Your task to perform on an android device: turn off picture-in-picture Image 0: 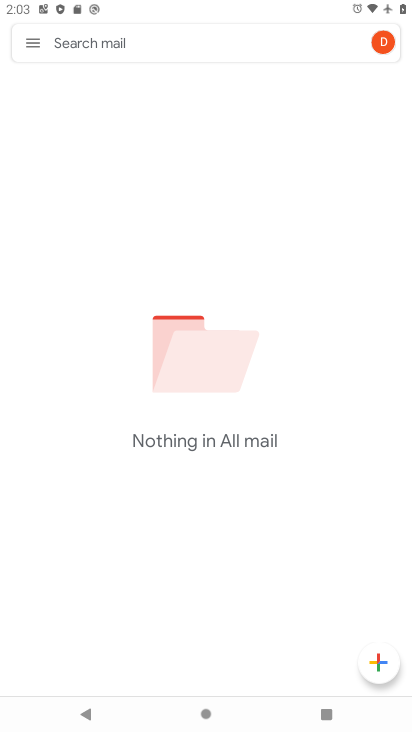
Step 0: press home button
Your task to perform on an android device: turn off picture-in-picture Image 1: 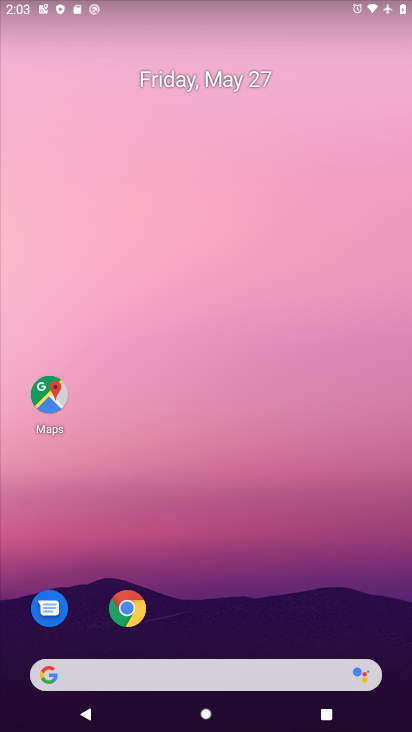
Step 1: click (131, 609)
Your task to perform on an android device: turn off picture-in-picture Image 2: 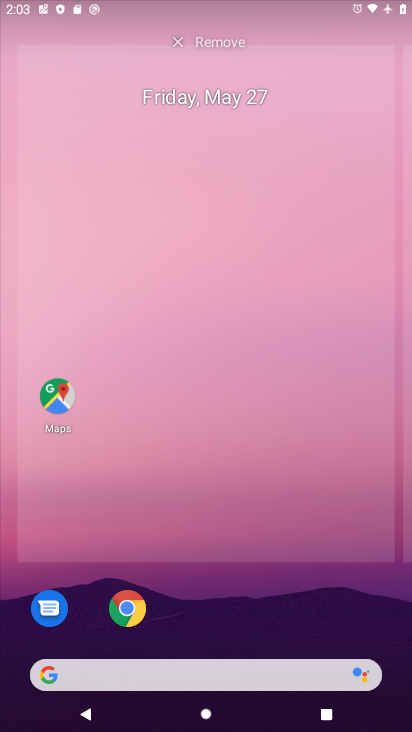
Step 2: click (223, 484)
Your task to perform on an android device: turn off picture-in-picture Image 3: 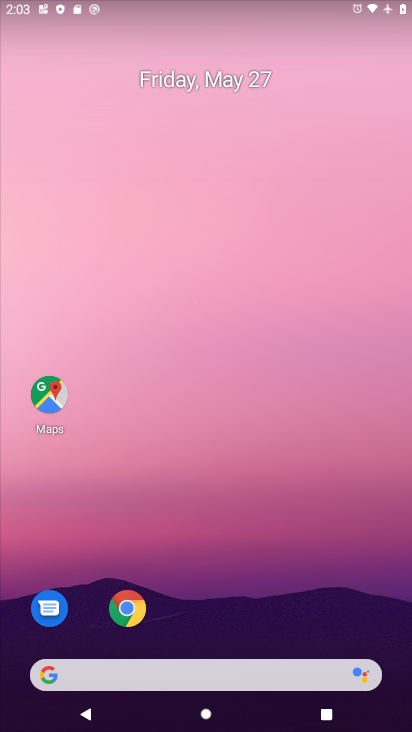
Step 3: click (130, 610)
Your task to perform on an android device: turn off picture-in-picture Image 4: 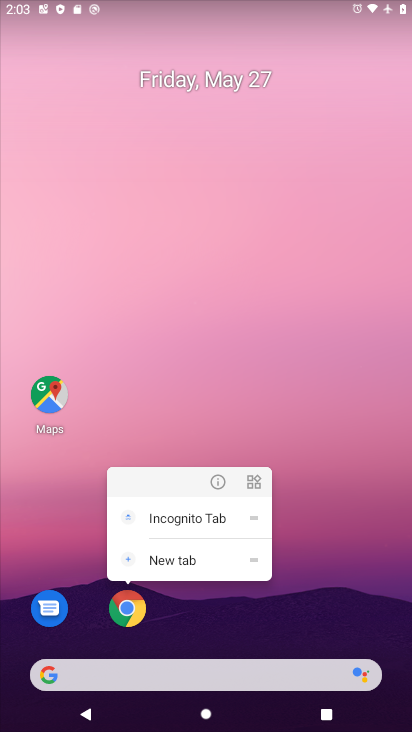
Step 4: click (215, 483)
Your task to perform on an android device: turn off picture-in-picture Image 5: 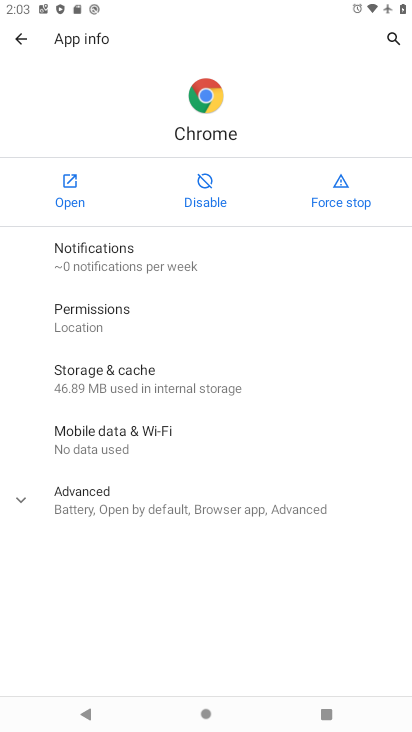
Step 5: click (97, 502)
Your task to perform on an android device: turn off picture-in-picture Image 6: 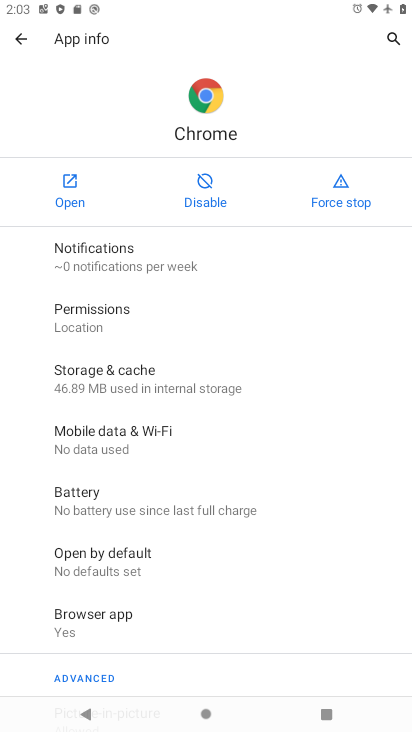
Step 6: drag from (167, 583) to (87, 566)
Your task to perform on an android device: turn off picture-in-picture Image 7: 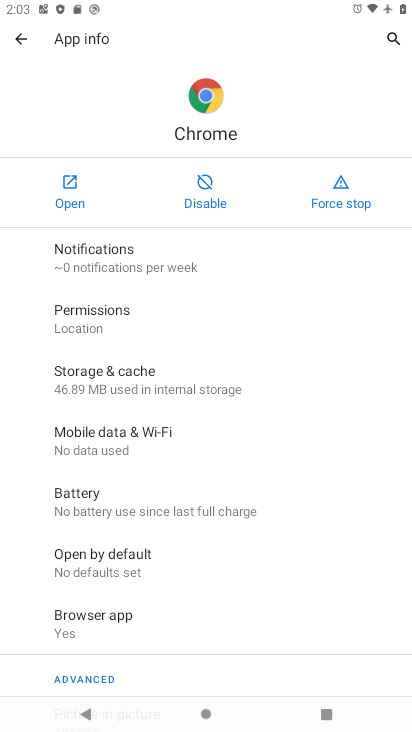
Step 7: drag from (144, 674) to (281, 287)
Your task to perform on an android device: turn off picture-in-picture Image 8: 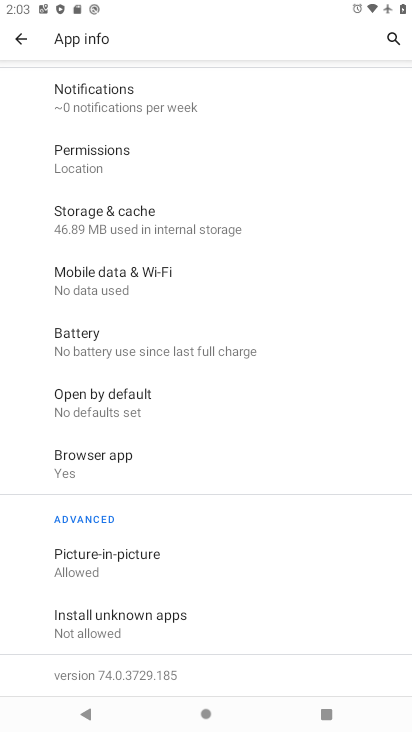
Step 8: click (107, 569)
Your task to perform on an android device: turn off picture-in-picture Image 9: 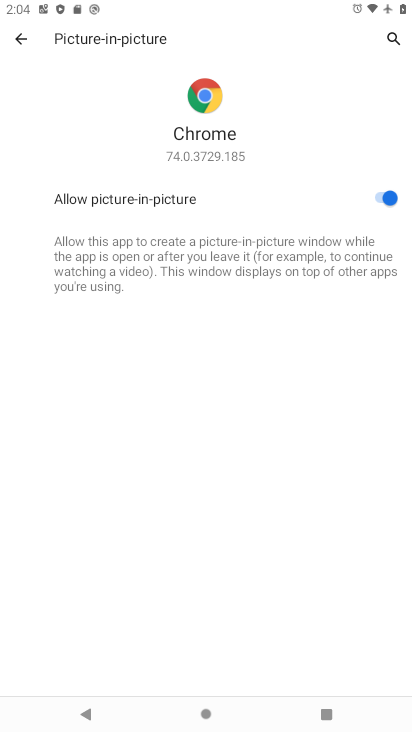
Step 9: click (381, 195)
Your task to perform on an android device: turn off picture-in-picture Image 10: 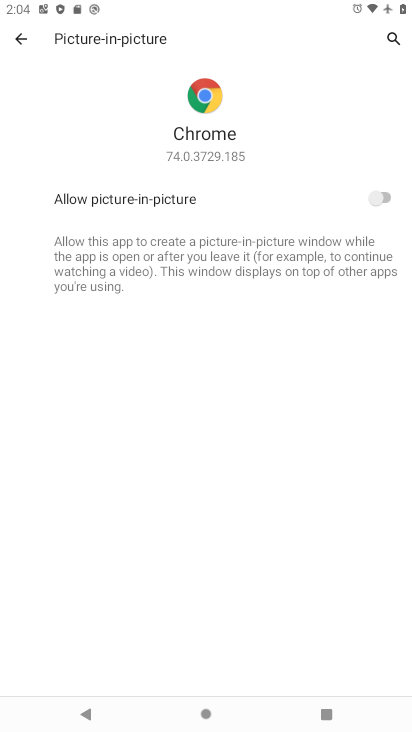
Step 10: task complete